Your task to perform on an android device: add a contact in the contacts app Image 0: 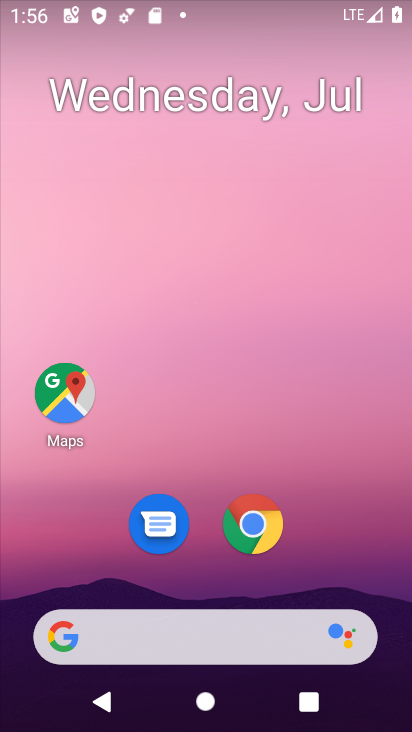
Step 0: drag from (341, 535) to (345, 13)
Your task to perform on an android device: add a contact in the contacts app Image 1: 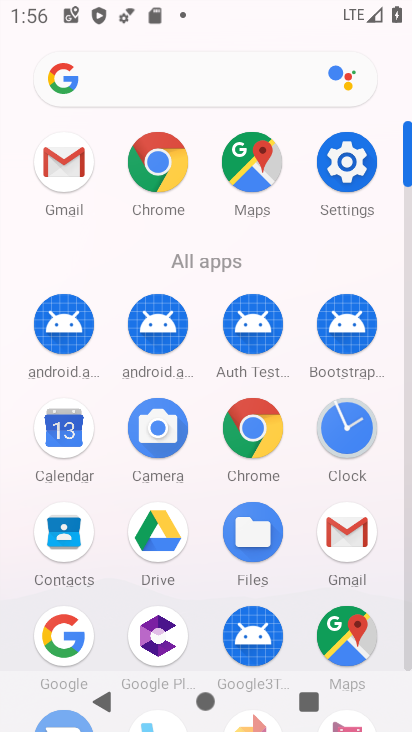
Step 1: click (64, 527)
Your task to perform on an android device: add a contact in the contacts app Image 2: 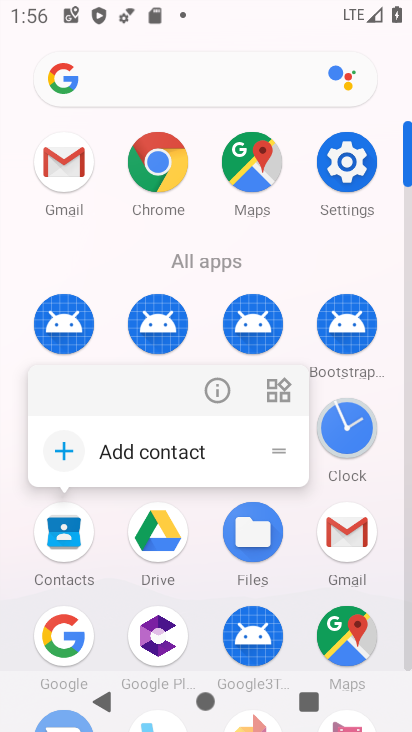
Step 2: click (62, 526)
Your task to perform on an android device: add a contact in the contacts app Image 3: 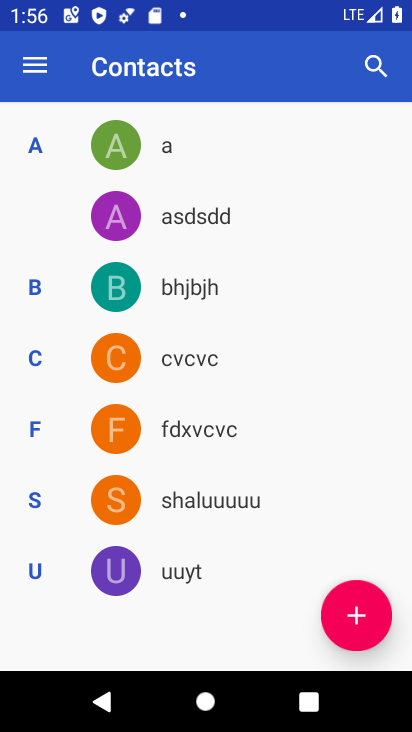
Step 3: click (356, 620)
Your task to perform on an android device: add a contact in the contacts app Image 4: 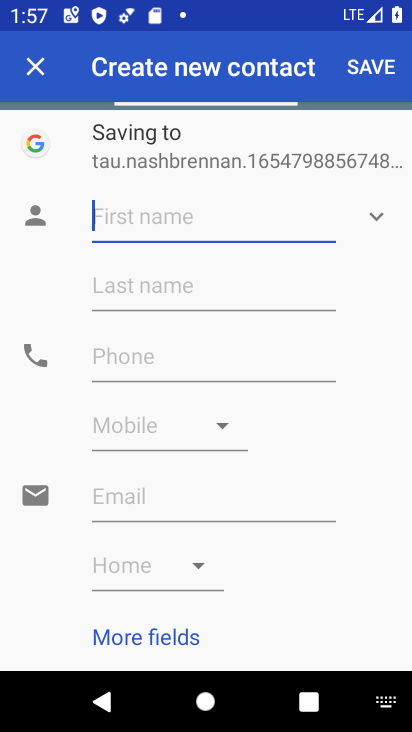
Step 4: type "Hare Rama Hare Krishna"
Your task to perform on an android device: add a contact in the contacts app Image 5: 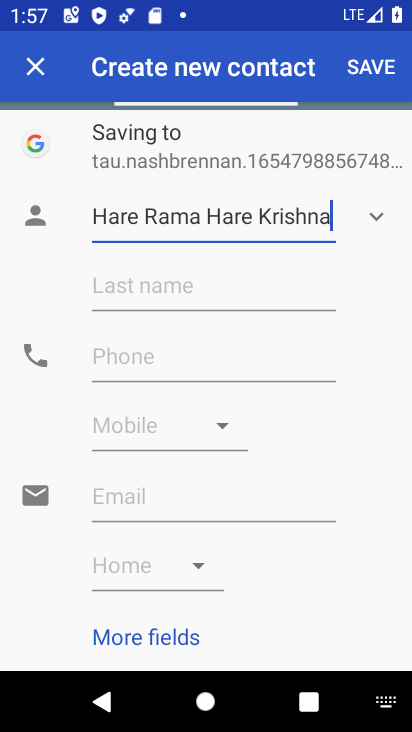
Step 5: click (200, 361)
Your task to perform on an android device: add a contact in the contacts app Image 6: 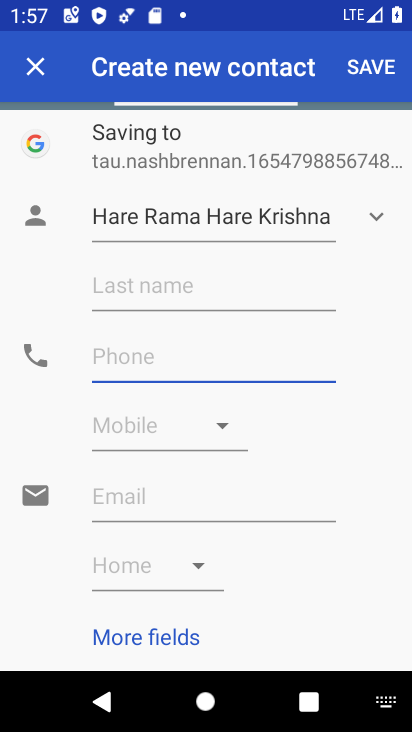
Step 6: type "77799553311"
Your task to perform on an android device: add a contact in the contacts app Image 7: 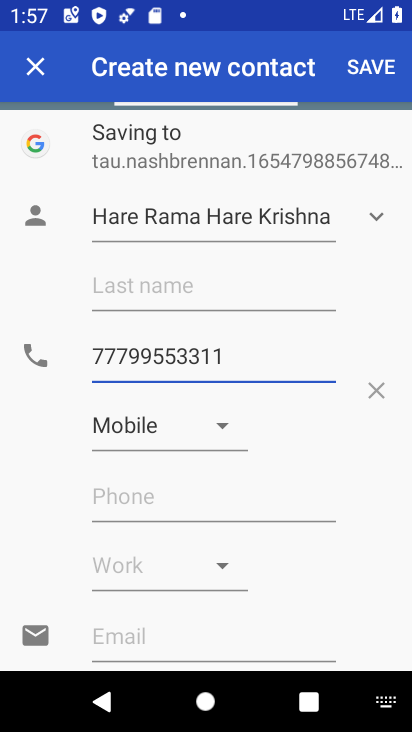
Step 7: click (365, 67)
Your task to perform on an android device: add a contact in the contacts app Image 8: 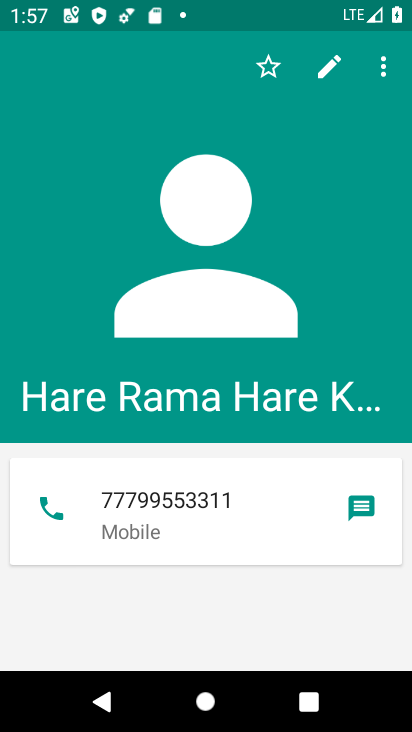
Step 8: task complete